Your task to perform on an android device: see sites visited before in the chrome app Image 0: 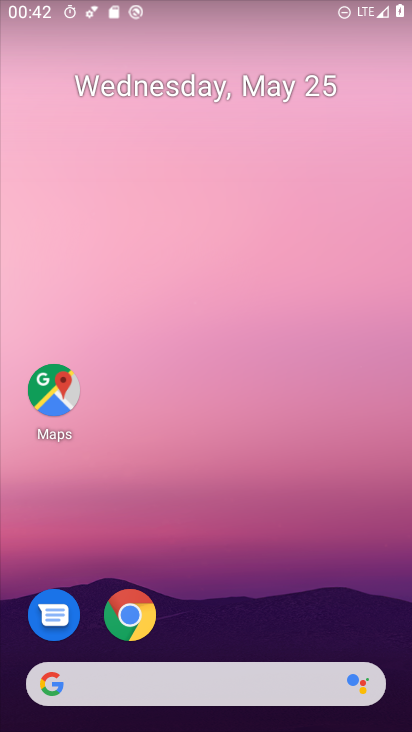
Step 0: press home button
Your task to perform on an android device: see sites visited before in the chrome app Image 1: 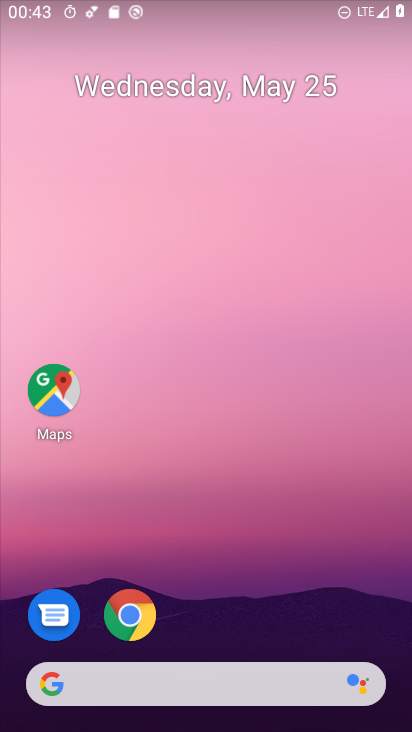
Step 1: drag from (281, 660) to (244, 302)
Your task to perform on an android device: see sites visited before in the chrome app Image 2: 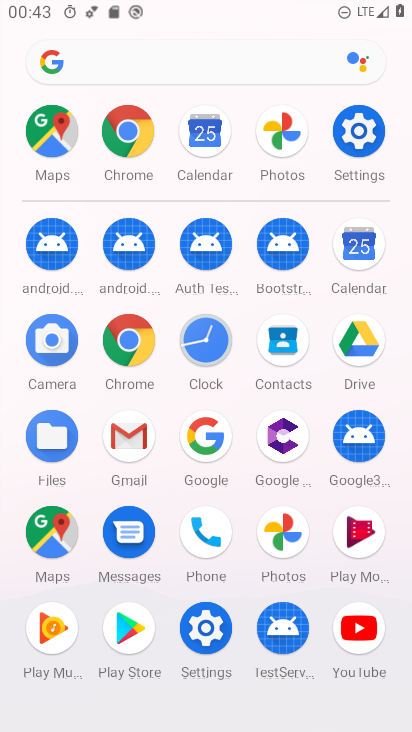
Step 2: click (130, 128)
Your task to perform on an android device: see sites visited before in the chrome app Image 3: 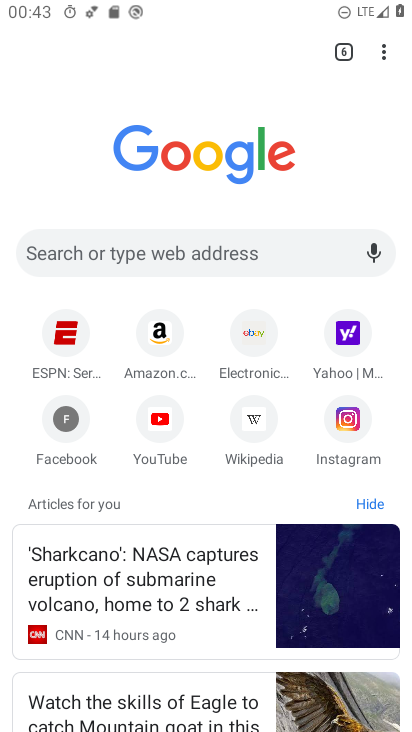
Step 3: click (377, 54)
Your task to perform on an android device: see sites visited before in the chrome app Image 4: 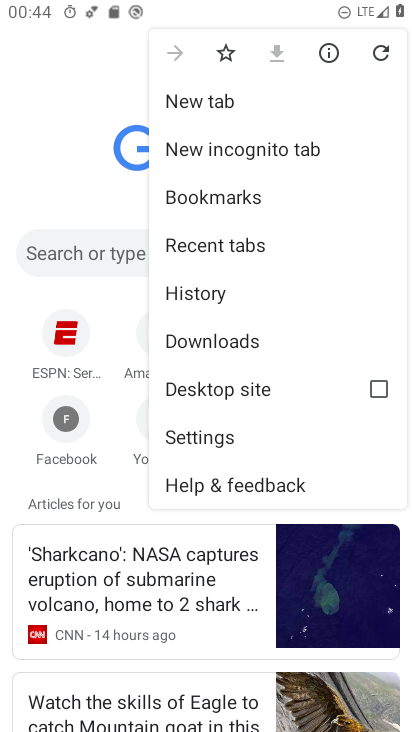
Step 4: click (198, 426)
Your task to perform on an android device: see sites visited before in the chrome app Image 5: 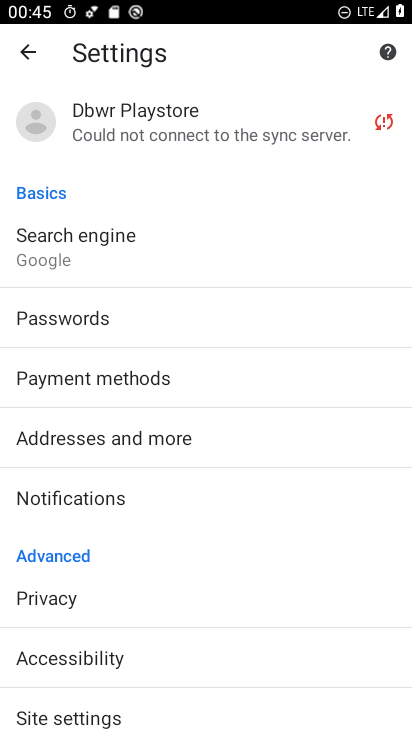
Step 5: click (99, 700)
Your task to perform on an android device: see sites visited before in the chrome app Image 6: 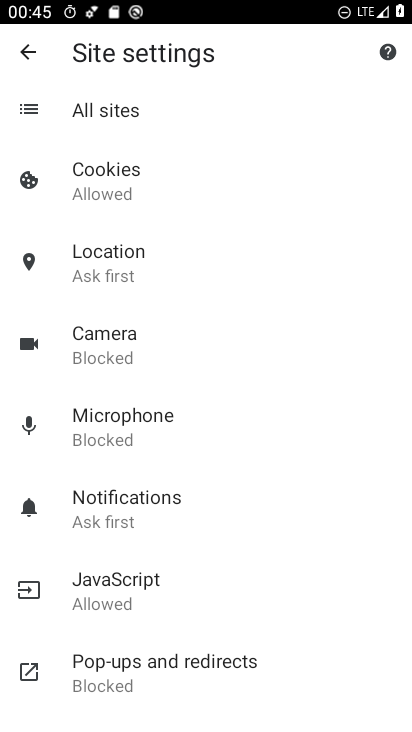
Step 6: click (172, 134)
Your task to perform on an android device: see sites visited before in the chrome app Image 7: 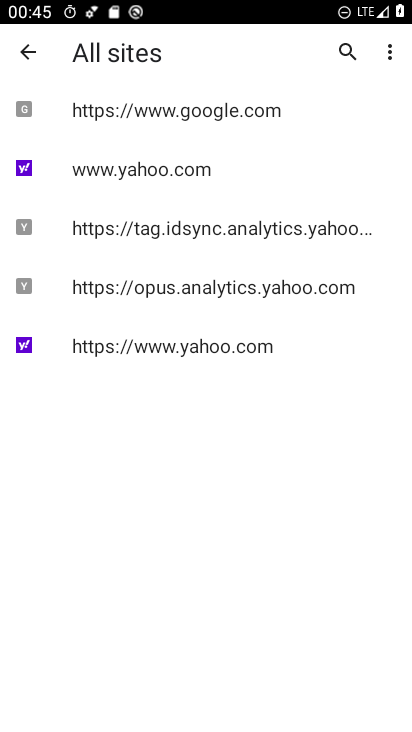
Step 7: task complete